Your task to perform on an android device: open chrome privacy settings Image 0: 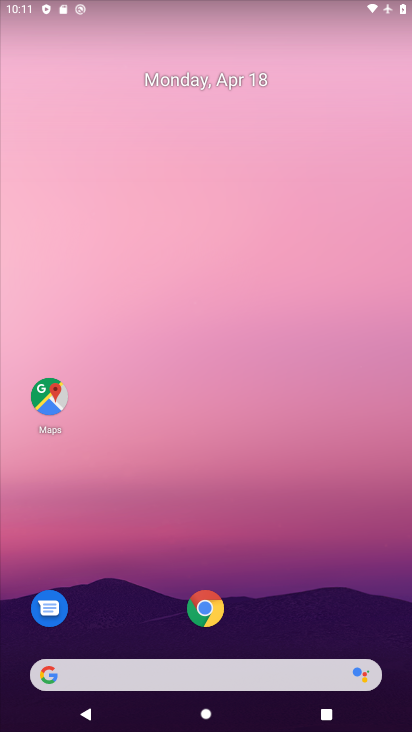
Step 0: click (203, 611)
Your task to perform on an android device: open chrome privacy settings Image 1: 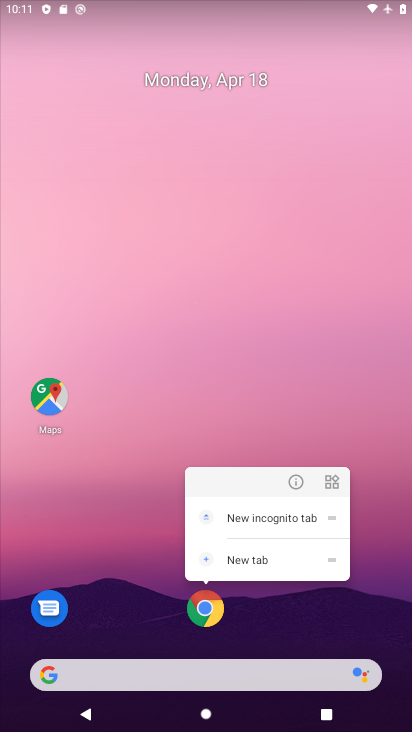
Step 1: click (214, 617)
Your task to perform on an android device: open chrome privacy settings Image 2: 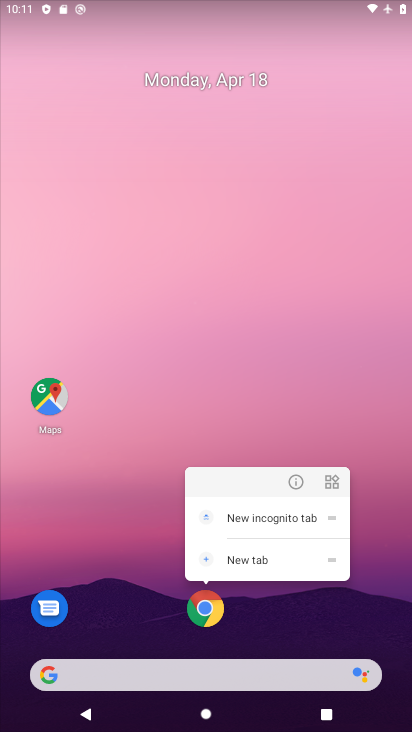
Step 2: click (214, 617)
Your task to perform on an android device: open chrome privacy settings Image 3: 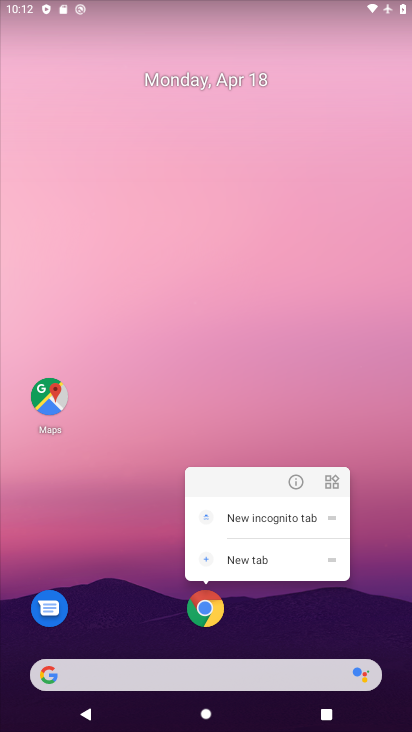
Step 3: click (209, 615)
Your task to perform on an android device: open chrome privacy settings Image 4: 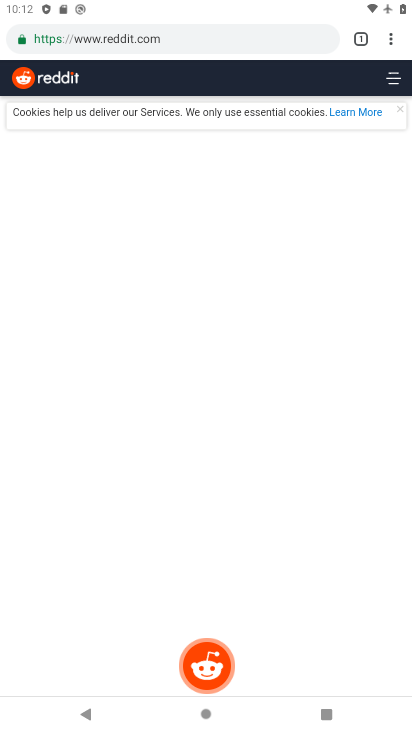
Step 4: click (390, 42)
Your task to perform on an android device: open chrome privacy settings Image 5: 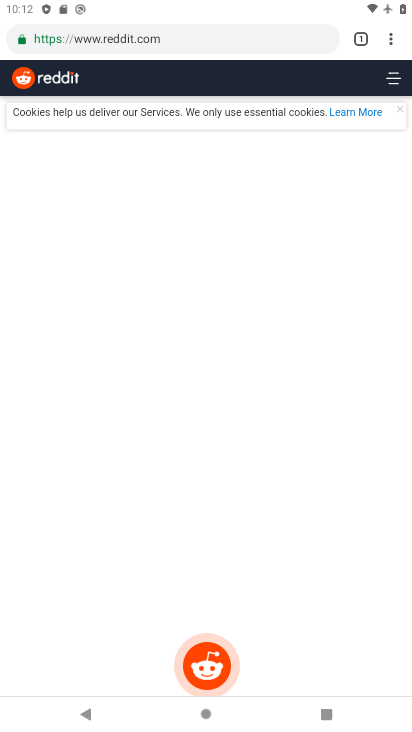
Step 5: drag from (391, 38) to (269, 467)
Your task to perform on an android device: open chrome privacy settings Image 6: 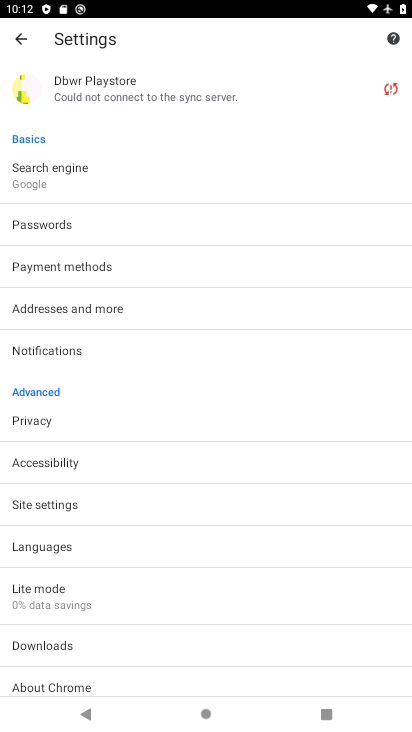
Step 6: click (47, 416)
Your task to perform on an android device: open chrome privacy settings Image 7: 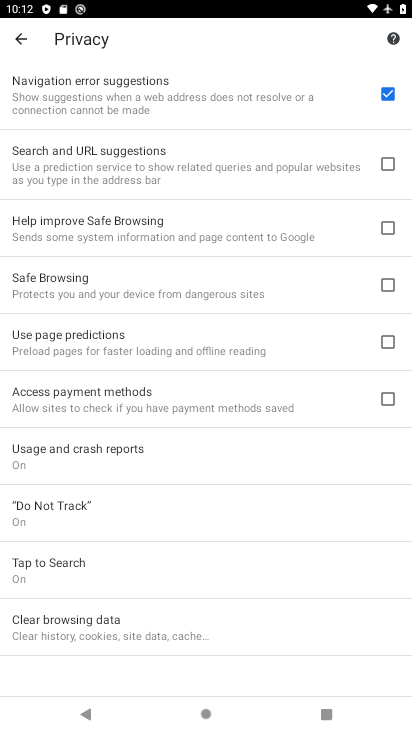
Step 7: task complete